Your task to perform on an android device: add a contact in the contacts app Image 0: 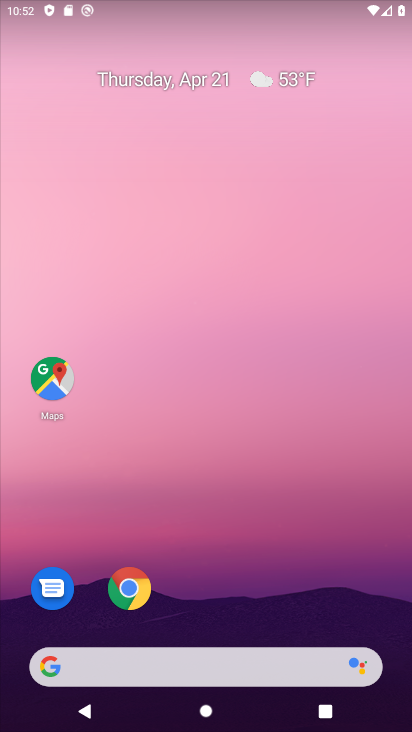
Step 0: drag from (275, 543) to (194, 4)
Your task to perform on an android device: add a contact in the contacts app Image 1: 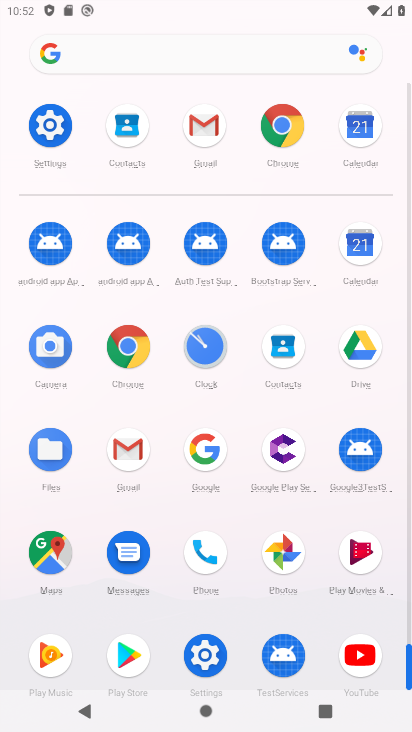
Step 1: click (276, 353)
Your task to perform on an android device: add a contact in the contacts app Image 2: 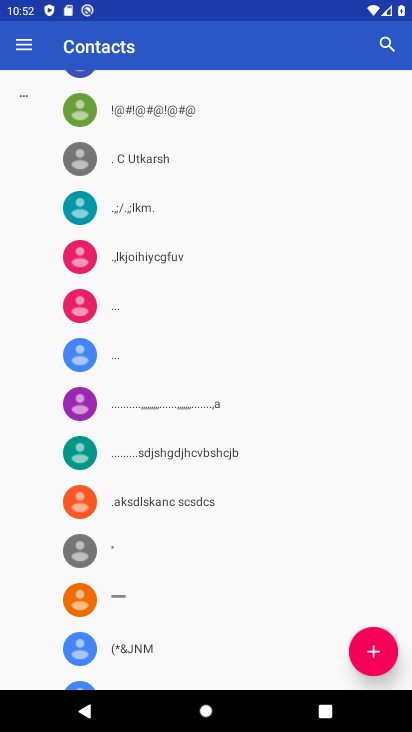
Step 2: click (387, 643)
Your task to perform on an android device: add a contact in the contacts app Image 3: 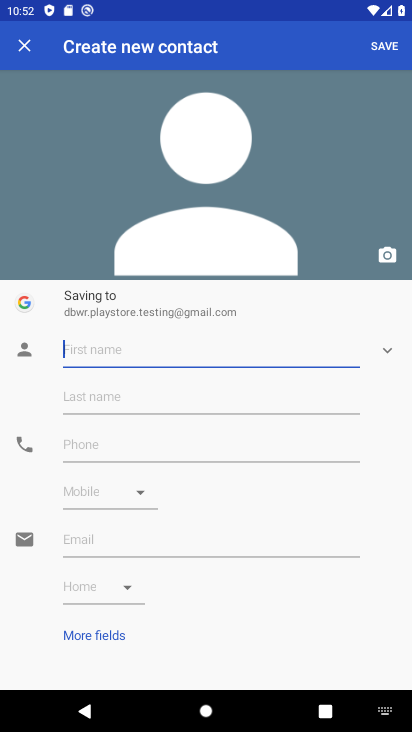
Step 3: type "po"
Your task to perform on an android device: add a contact in the contacts app Image 4: 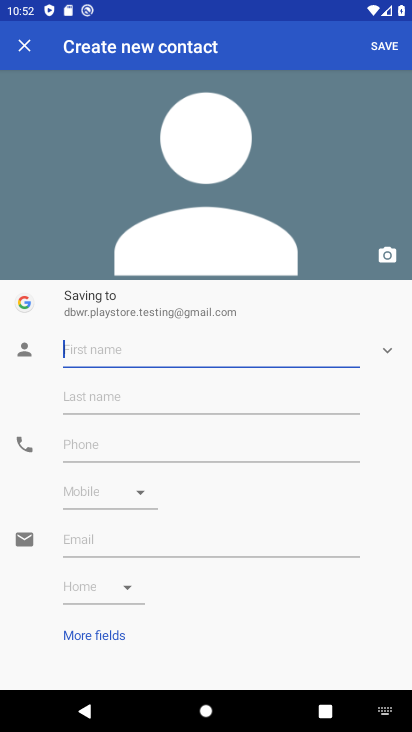
Step 4: click (107, 440)
Your task to perform on an android device: add a contact in the contacts app Image 5: 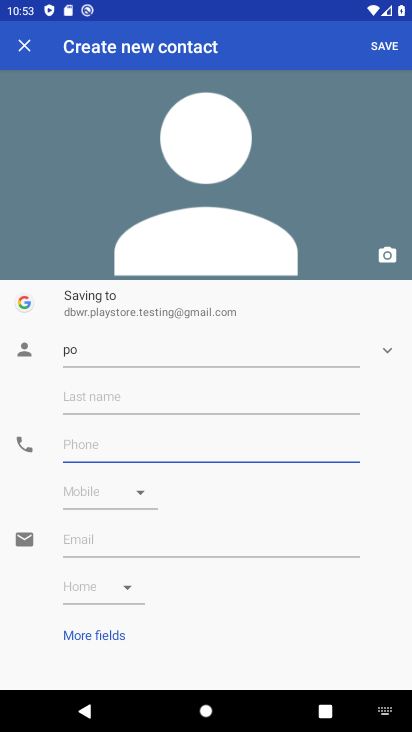
Step 5: type "12345678909"
Your task to perform on an android device: add a contact in the contacts app Image 6: 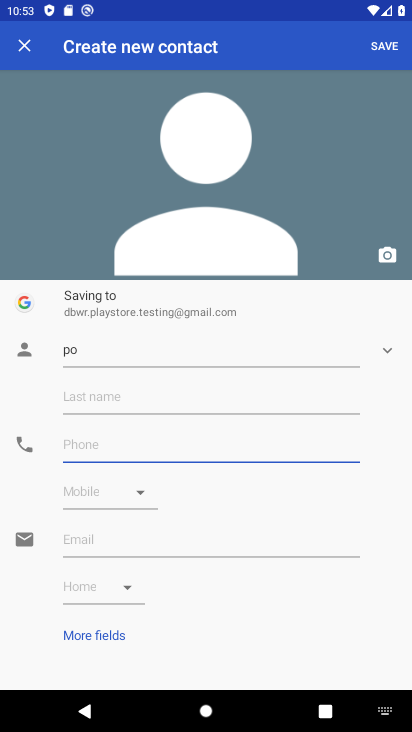
Step 6: click (398, 41)
Your task to perform on an android device: add a contact in the contacts app Image 7: 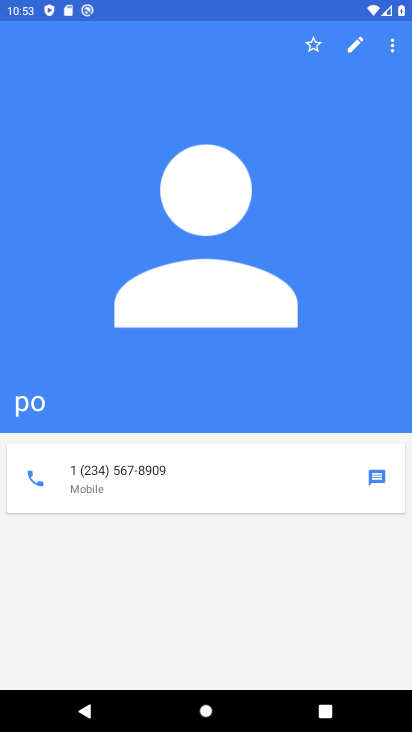
Step 7: task complete